Your task to perform on an android device: turn off location history Image 0: 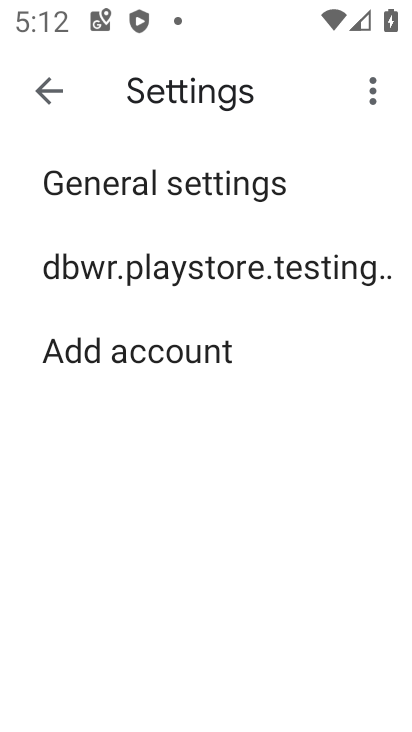
Step 0: press home button
Your task to perform on an android device: turn off location history Image 1: 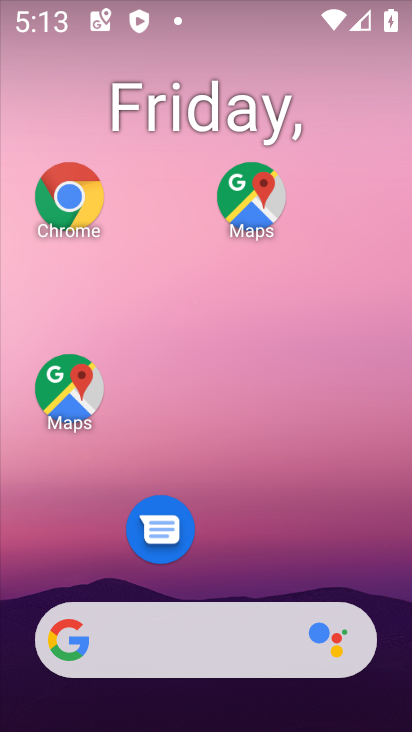
Step 1: drag from (267, 531) to (267, 153)
Your task to perform on an android device: turn off location history Image 2: 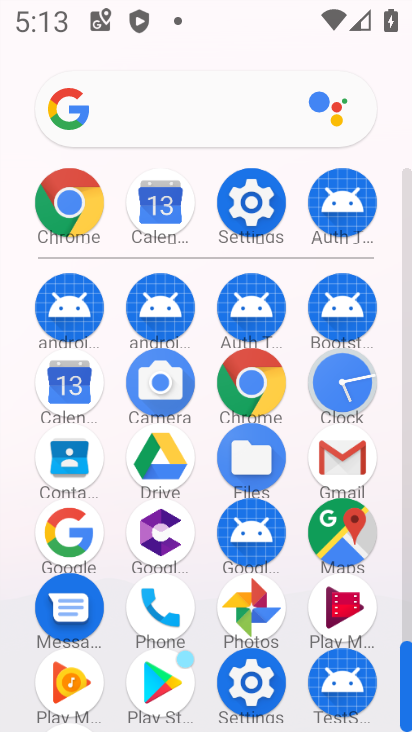
Step 2: drag from (197, 646) to (240, 327)
Your task to perform on an android device: turn off location history Image 3: 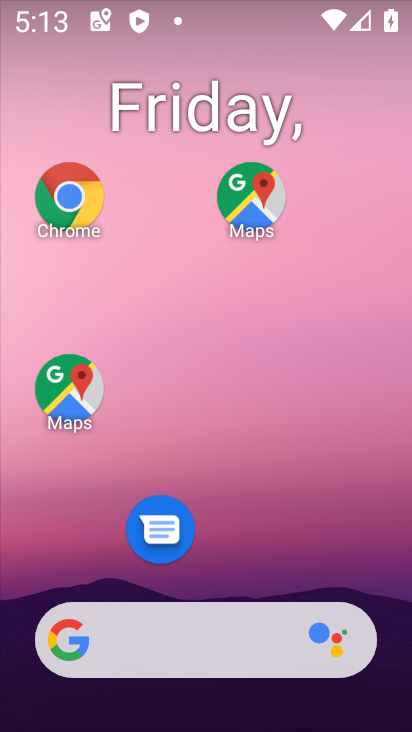
Step 3: drag from (239, 518) to (263, 191)
Your task to perform on an android device: turn off location history Image 4: 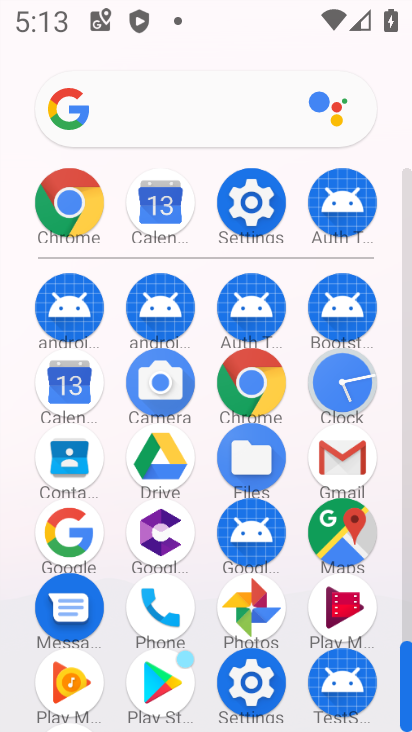
Step 4: click (249, 687)
Your task to perform on an android device: turn off location history Image 5: 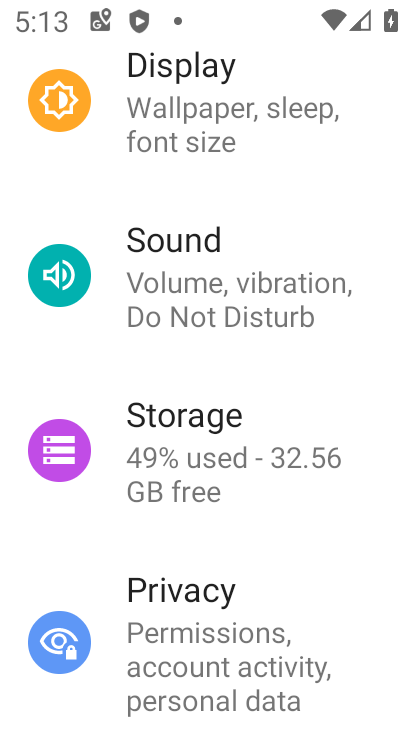
Step 5: drag from (232, 609) to (248, 245)
Your task to perform on an android device: turn off location history Image 6: 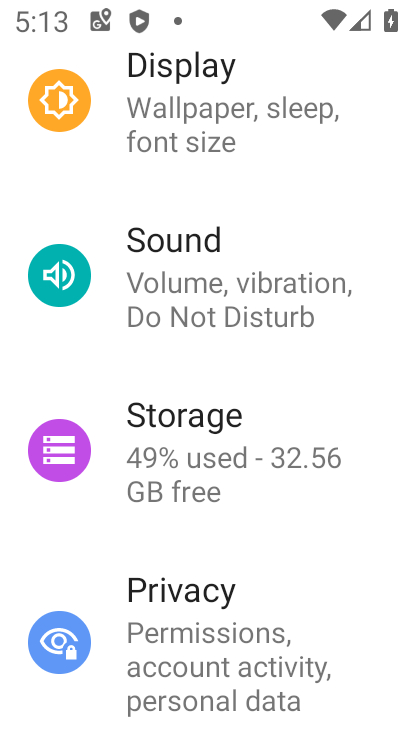
Step 6: drag from (263, 561) to (277, 146)
Your task to perform on an android device: turn off location history Image 7: 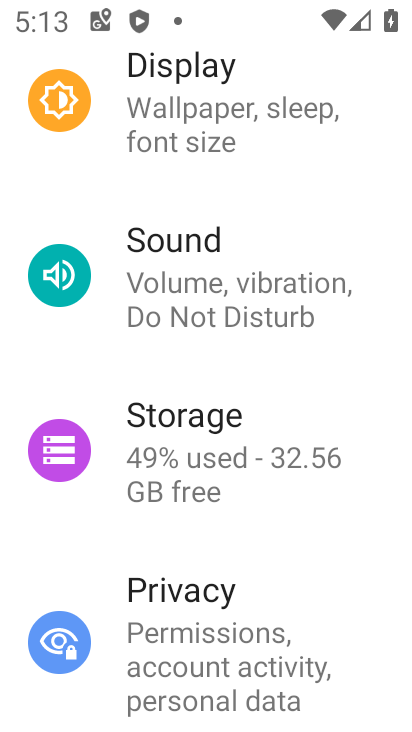
Step 7: drag from (232, 497) to (287, 223)
Your task to perform on an android device: turn off location history Image 8: 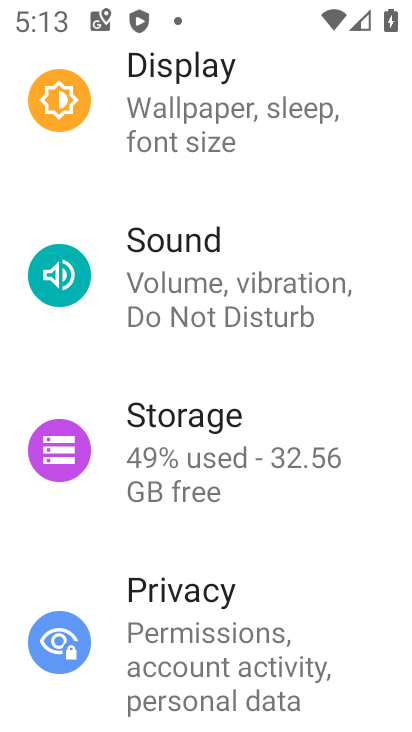
Step 8: drag from (246, 219) to (185, 544)
Your task to perform on an android device: turn off location history Image 9: 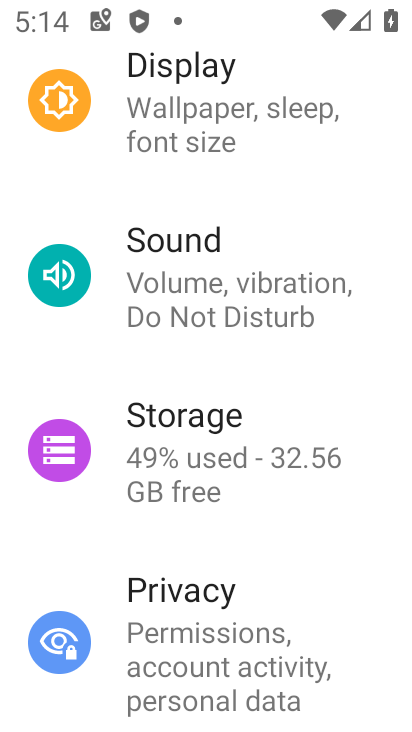
Step 9: drag from (348, 310) to (171, 674)
Your task to perform on an android device: turn off location history Image 10: 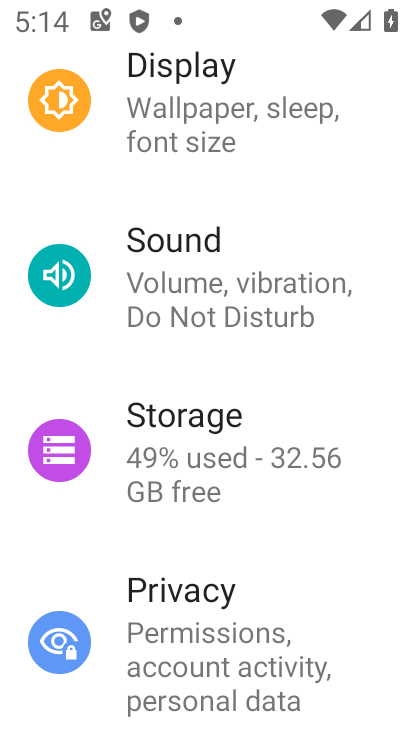
Step 10: drag from (222, 622) to (214, 282)
Your task to perform on an android device: turn off location history Image 11: 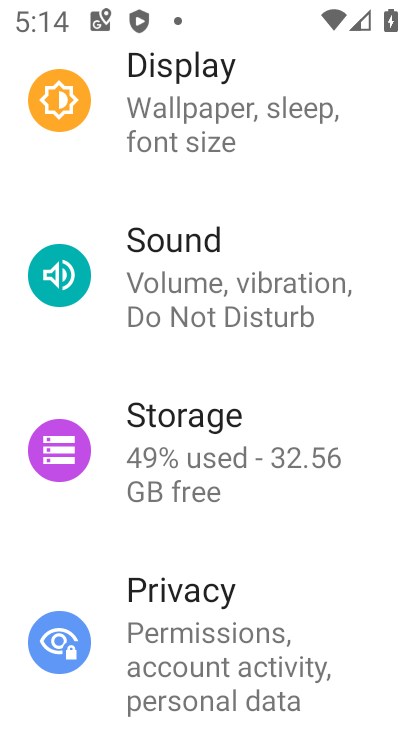
Step 11: drag from (245, 136) to (209, 474)
Your task to perform on an android device: turn off location history Image 12: 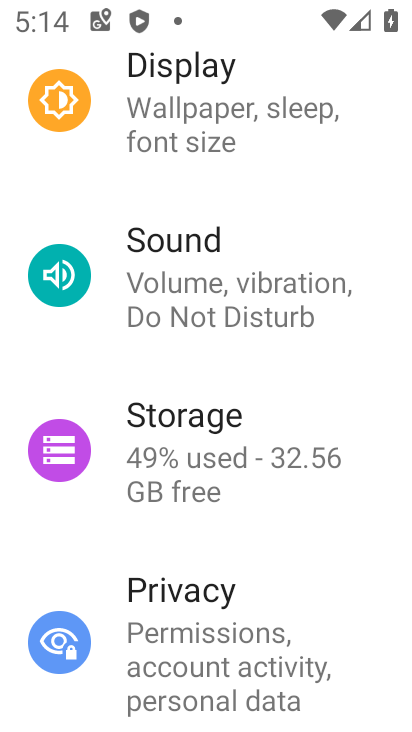
Step 12: click (268, 69)
Your task to perform on an android device: turn off location history Image 13: 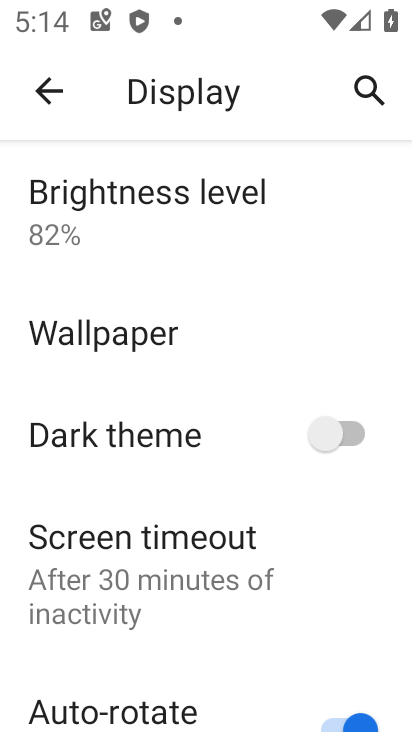
Step 13: click (305, 728)
Your task to perform on an android device: turn off location history Image 14: 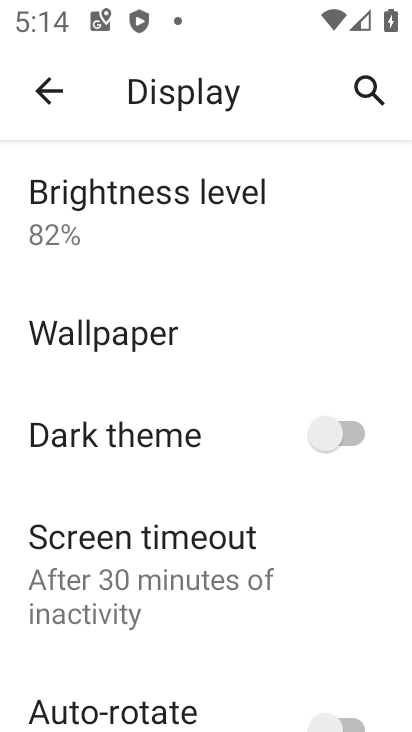
Step 14: click (56, 87)
Your task to perform on an android device: turn off location history Image 15: 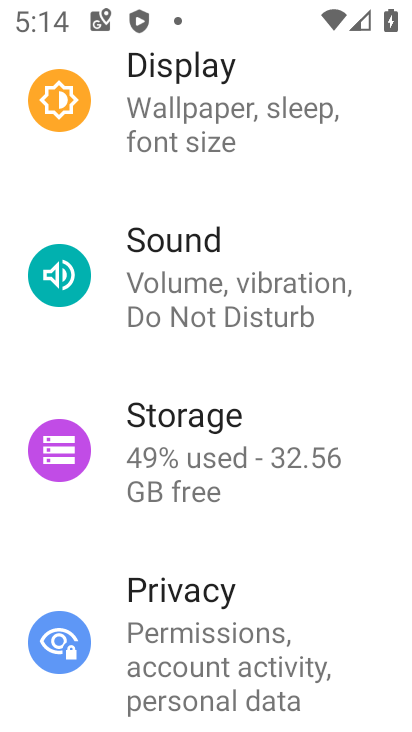
Step 15: click (229, 587)
Your task to perform on an android device: turn off location history Image 16: 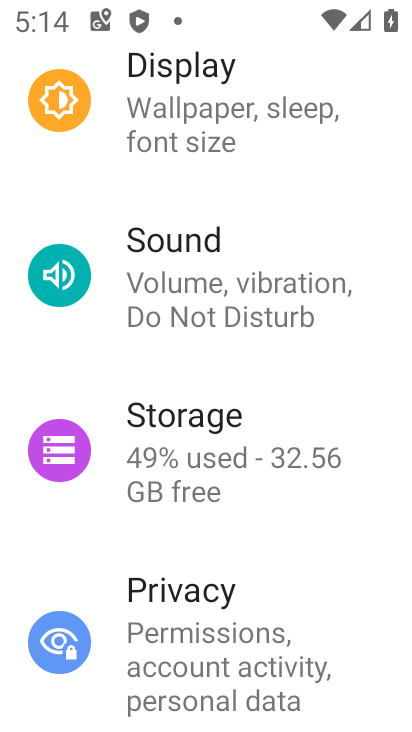
Step 16: drag from (279, 218) to (223, 467)
Your task to perform on an android device: turn off location history Image 17: 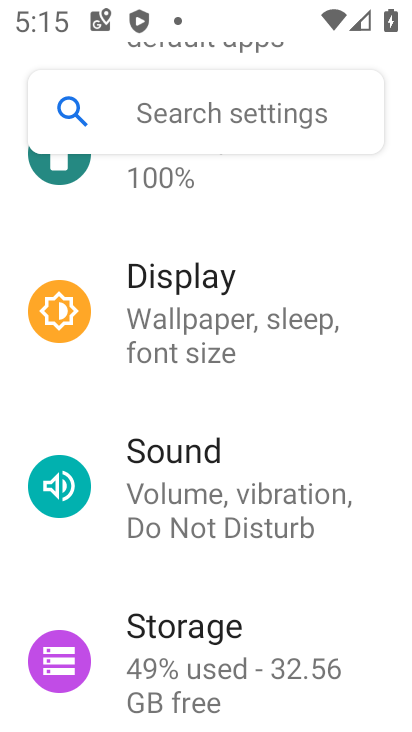
Step 17: drag from (272, 301) to (222, 604)
Your task to perform on an android device: turn off location history Image 18: 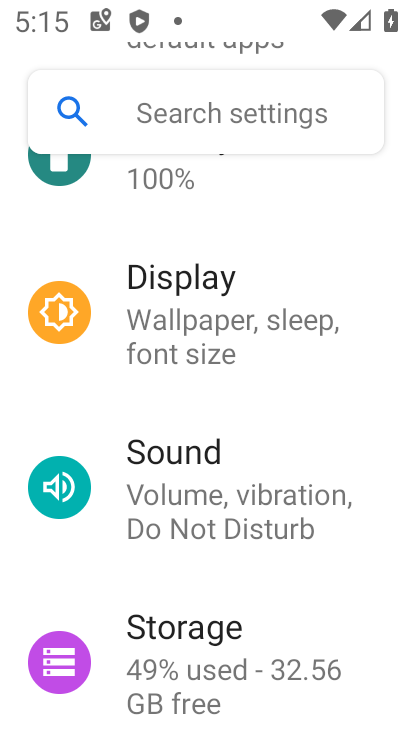
Step 18: drag from (222, 604) to (256, 264)
Your task to perform on an android device: turn off location history Image 19: 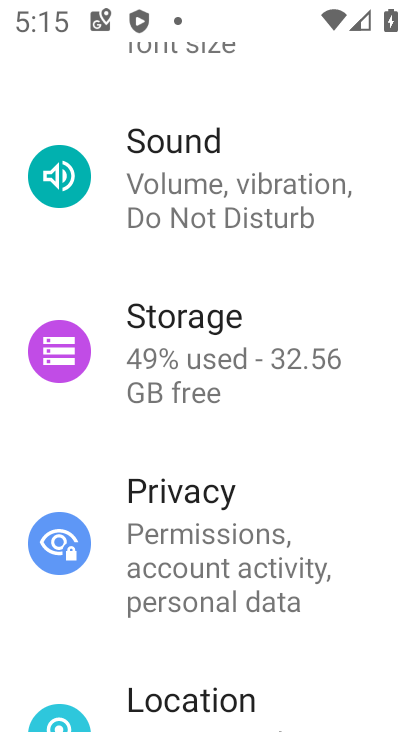
Step 19: drag from (195, 670) to (193, 377)
Your task to perform on an android device: turn off location history Image 20: 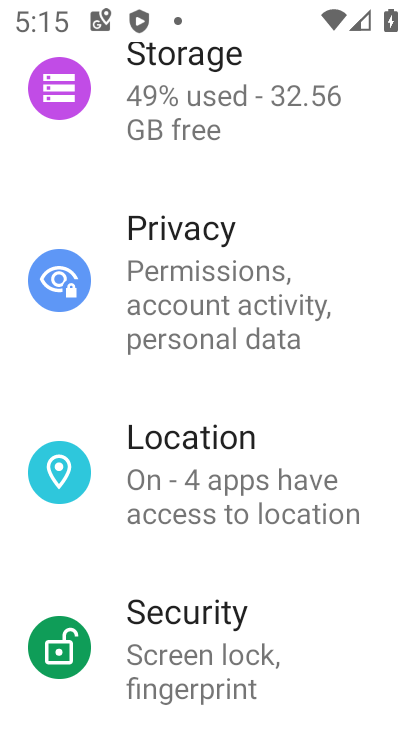
Step 20: click (190, 488)
Your task to perform on an android device: turn off location history Image 21: 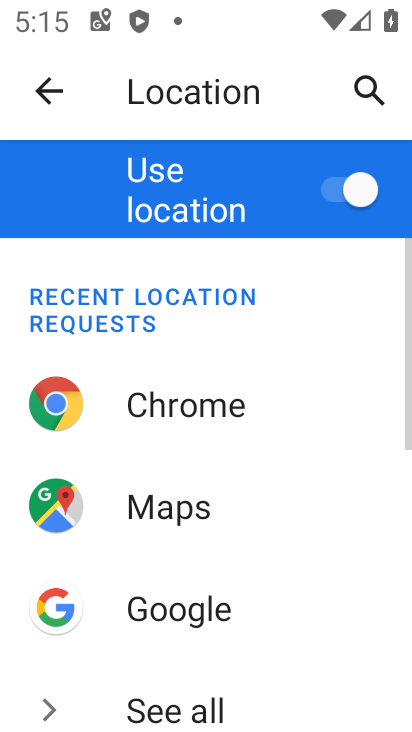
Step 21: drag from (210, 634) to (295, 299)
Your task to perform on an android device: turn off location history Image 22: 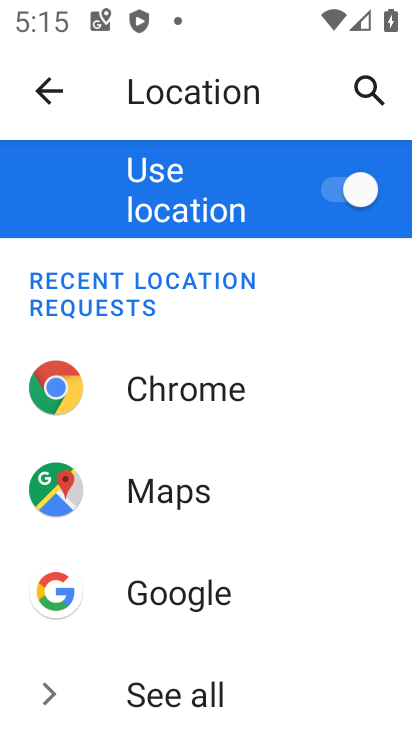
Step 22: drag from (193, 667) to (179, 275)
Your task to perform on an android device: turn off location history Image 23: 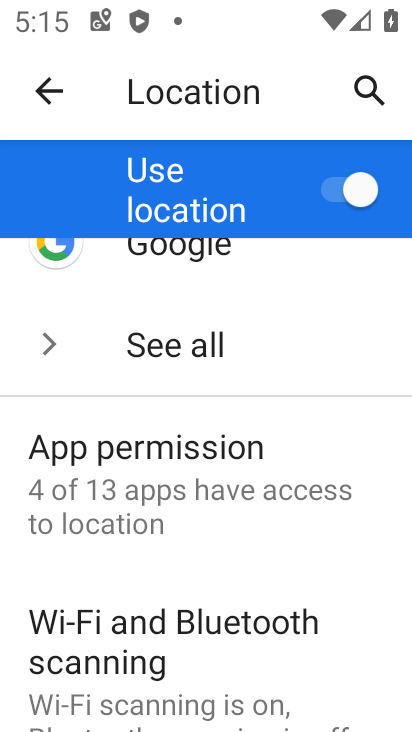
Step 23: drag from (190, 660) to (204, 364)
Your task to perform on an android device: turn off location history Image 24: 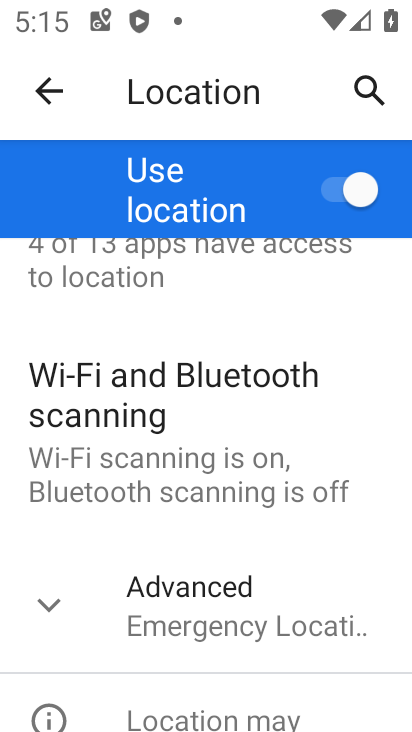
Step 24: drag from (202, 682) to (239, 420)
Your task to perform on an android device: turn off location history Image 25: 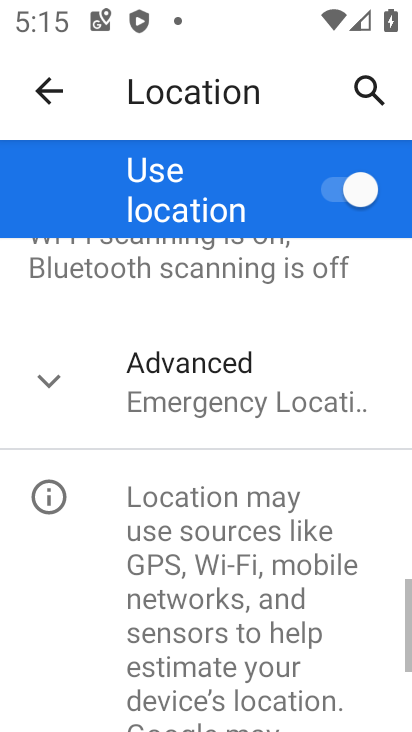
Step 25: click (189, 559)
Your task to perform on an android device: turn off location history Image 26: 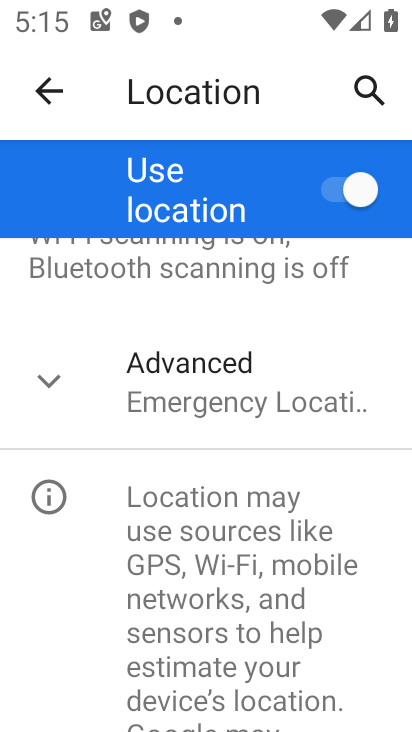
Step 26: click (157, 410)
Your task to perform on an android device: turn off location history Image 27: 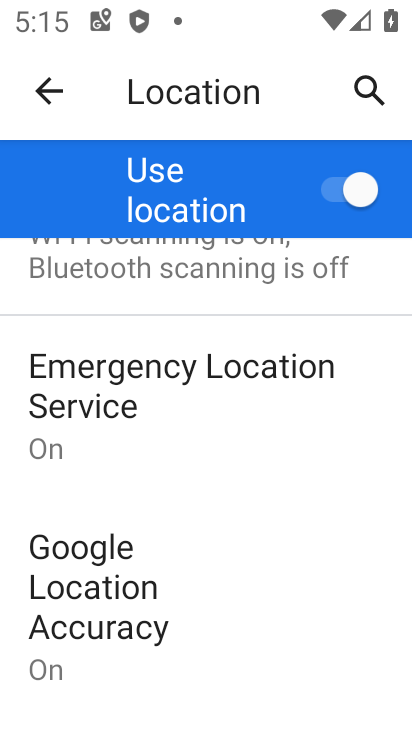
Step 27: drag from (132, 645) to (200, 384)
Your task to perform on an android device: turn off location history Image 28: 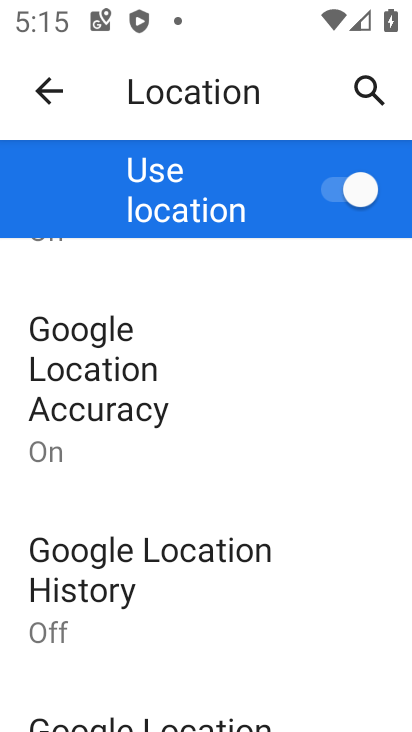
Step 28: click (143, 587)
Your task to perform on an android device: turn off location history Image 29: 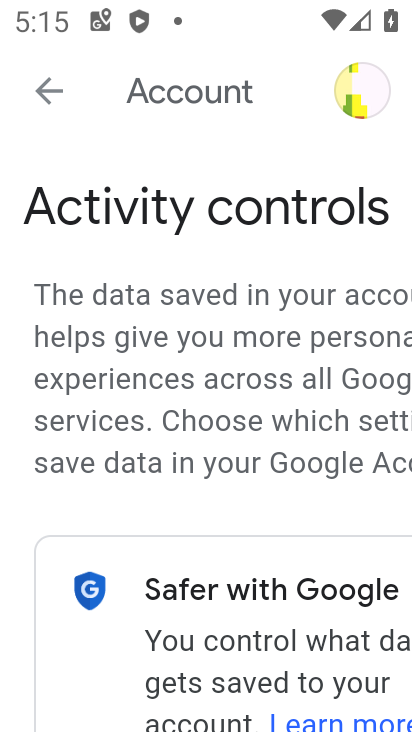
Step 29: drag from (198, 378) to (198, 283)
Your task to perform on an android device: turn off location history Image 30: 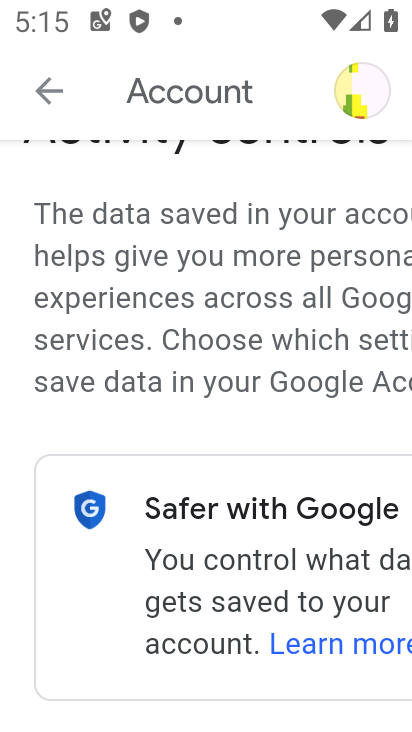
Step 30: click (193, 381)
Your task to perform on an android device: turn off location history Image 31: 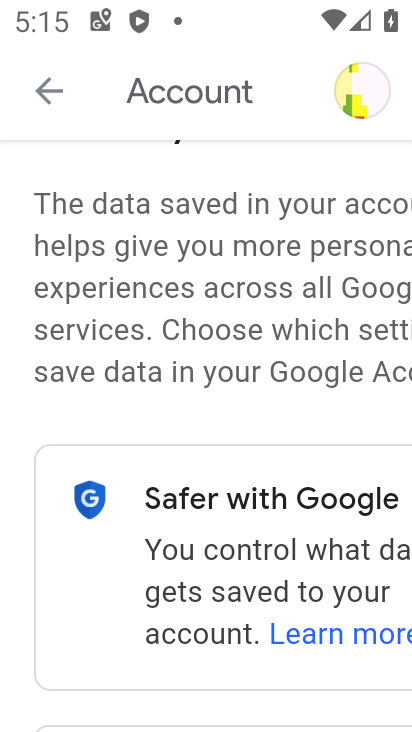
Step 31: drag from (204, 652) to (280, 339)
Your task to perform on an android device: turn off location history Image 32: 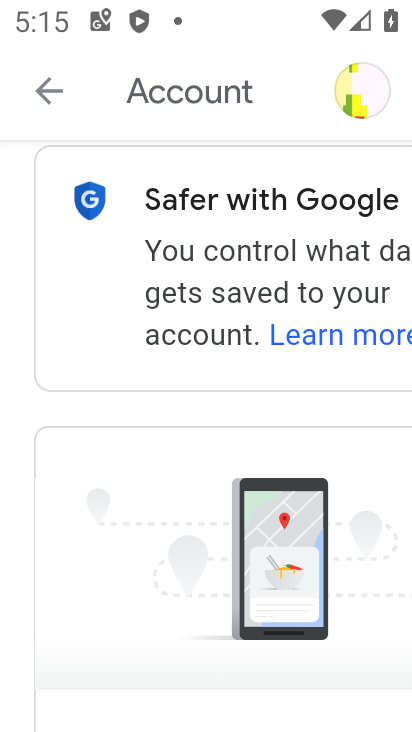
Step 32: drag from (228, 597) to (256, 171)
Your task to perform on an android device: turn off location history Image 33: 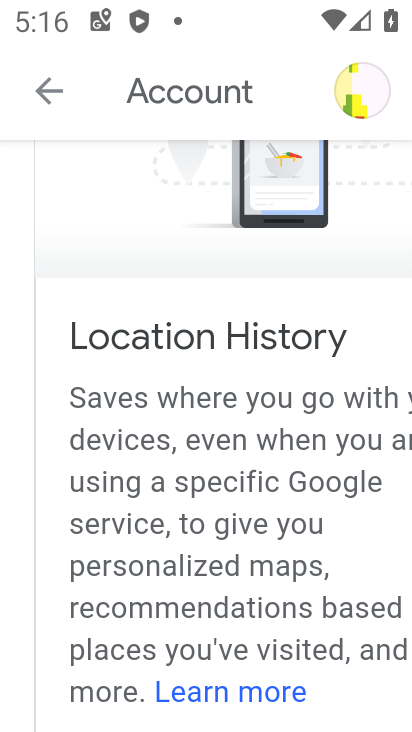
Step 33: drag from (243, 625) to (280, 228)
Your task to perform on an android device: turn off location history Image 34: 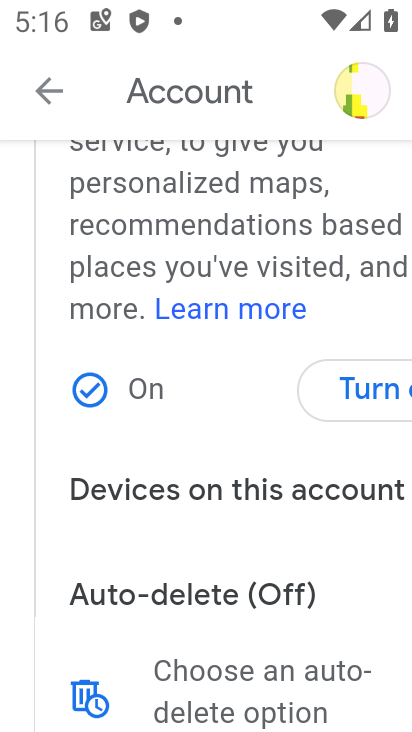
Step 34: click (359, 396)
Your task to perform on an android device: turn off location history Image 35: 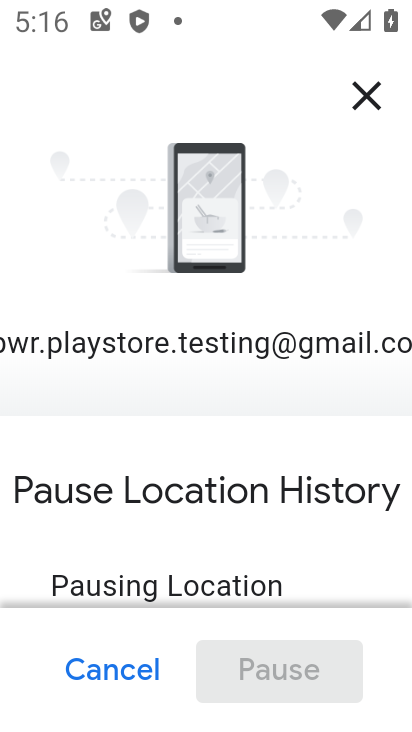
Step 35: drag from (192, 539) to (213, 185)
Your task to perform on an android device: turn off location history Image 36: 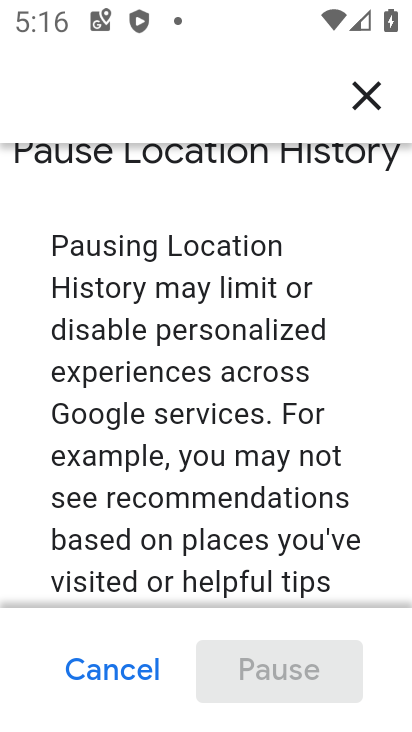
Step 36: click (242, 139)
Your task to perform on an android device: turn off location history Image 37: 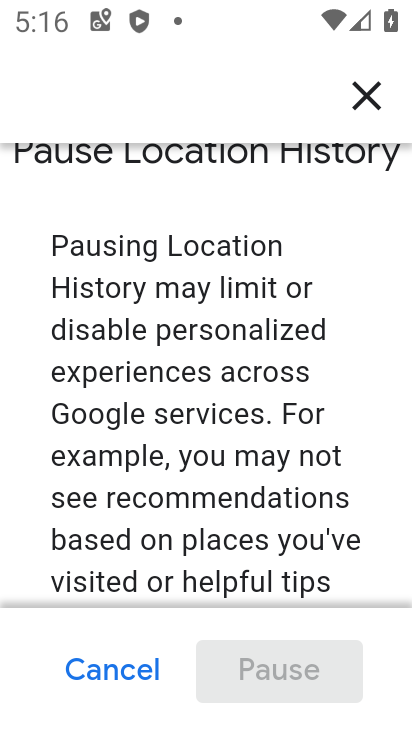
Step 37: drag from (202, 559) to (200, 112)
Your task to perform on an android device: turn off location history Image 38: 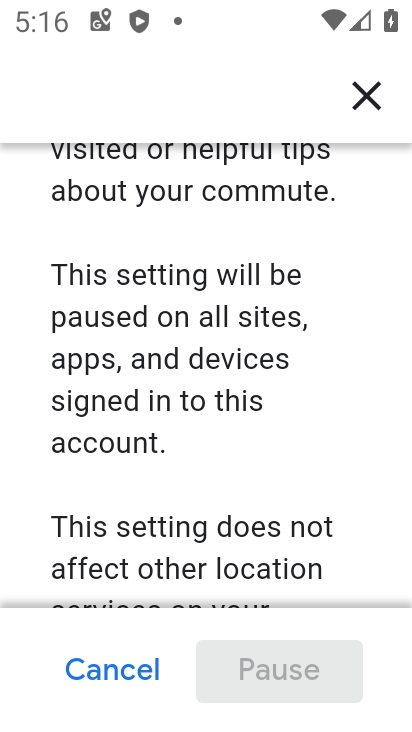
Step 38: drag from (188, 536) to (244, 189)
Your task to perform on an android device: turn off location history Image 39: 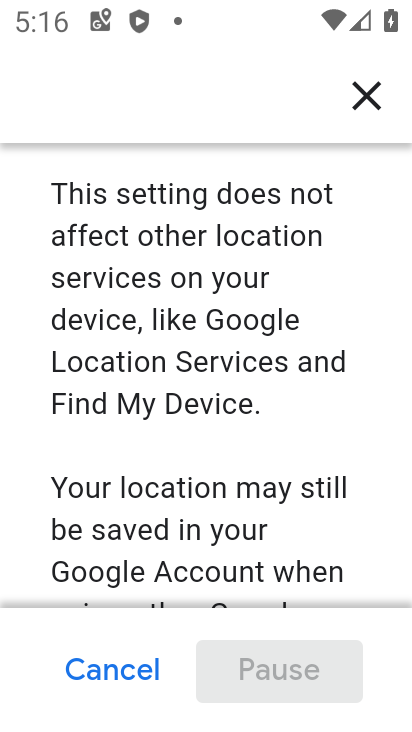
Step 39: drag from (251, 204) to (257, 163)
Your task to perform on an android device: turn off location history Image 40: 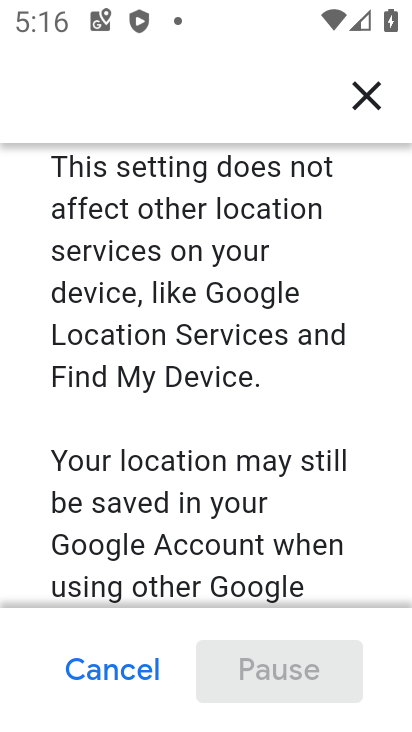
Step 40: drag from (229, 563) to (255, 189)
Your task to perform on an android device: turn off location history Image 41: 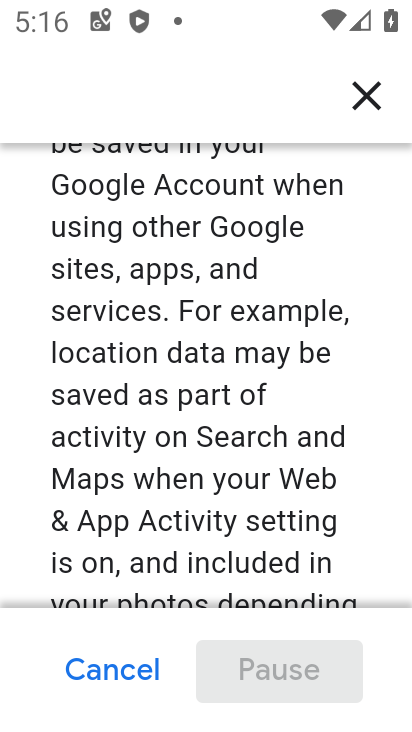
Step 41: drag from (194, 570) to (212, 348)
Your task to perform on an android device: turn off location history Image 42: 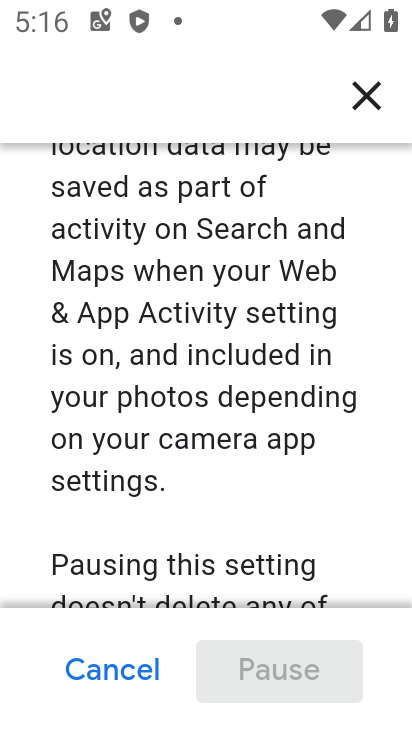
Step 42: drag from (168, 575) to (217, 331)
Your task to perform on an android device: turn off location history Image 43: 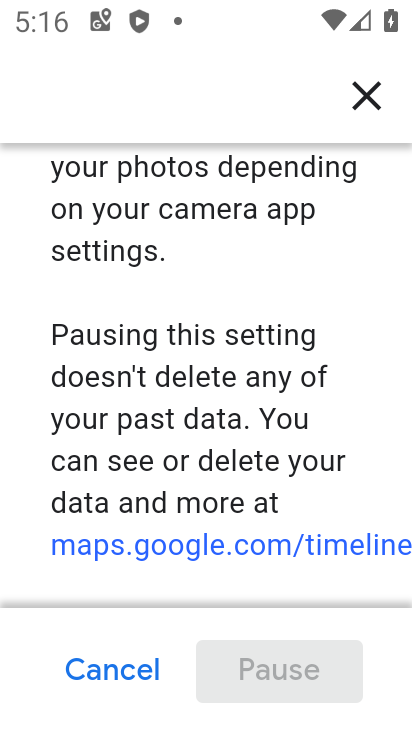
Step 43: drag from (230, 552) to (232, 240)
Your task to perform on an android device: turn off location history Image 44: 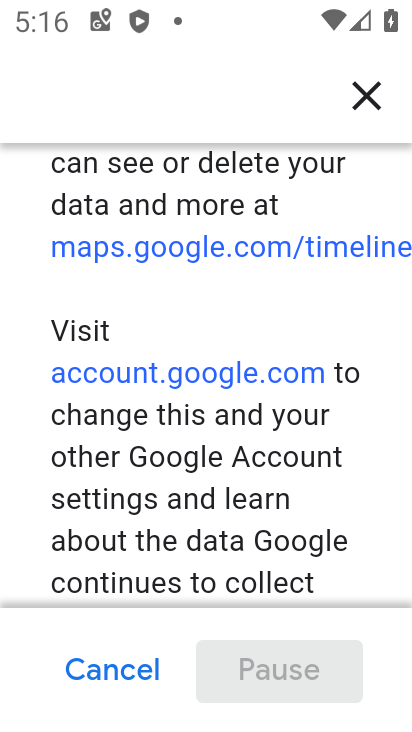
Step 44: drag from (220, 558) to (220, 219)
Your task to perform on an android device: turn off location history Image 45: 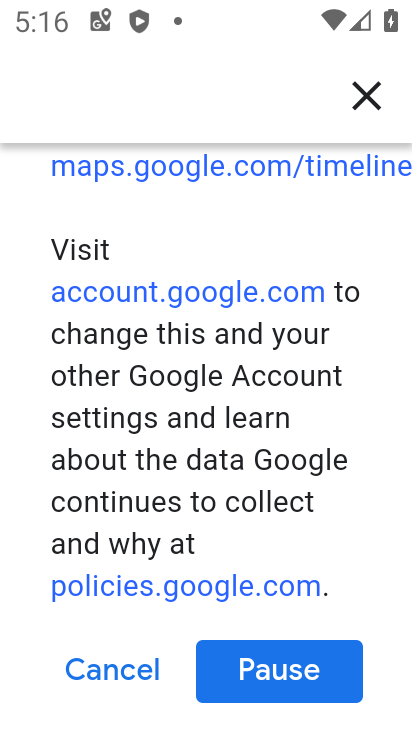
Step 45: click (279, 672)
Your task to perform on an android device: turn off location history Image 46: 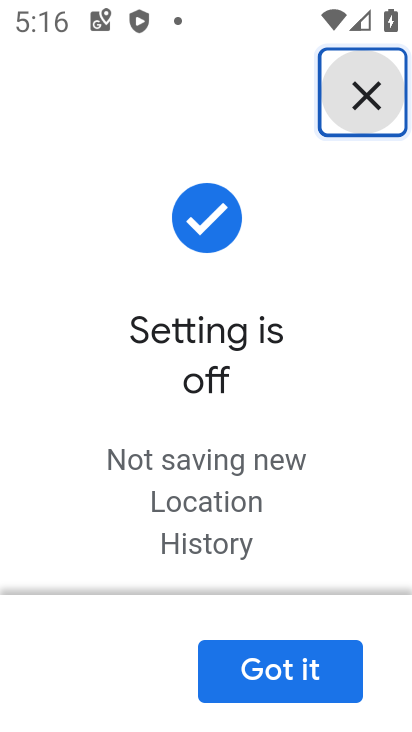
Step 46: click (286, 672)
Your task to perform on an android device: turn off location history Image 47: 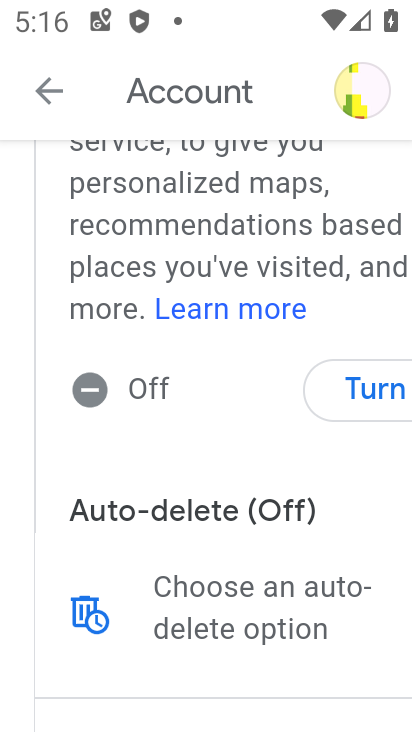
Step 47: task complete